Your task to perform on an android device: Open calendar and show me the second week of next month Image 0: 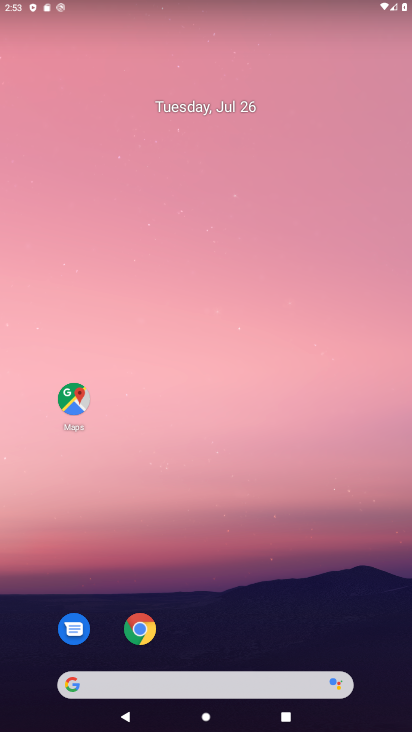
Step 0: drag from (224, 711) to (241, 212)
Your task to perform on an android device: Open calendar and show me the second week of next month Image 1: 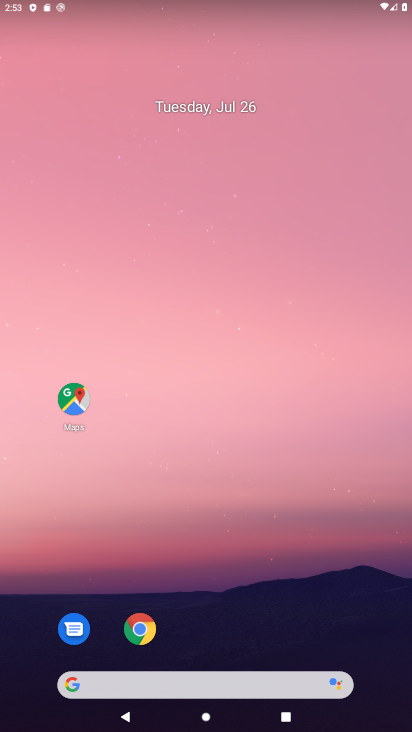
Step 1: drag from (229, 729) to (248, 82)
Your task to perform on an android device: Open calendar and show me the second week of next month Image 2: 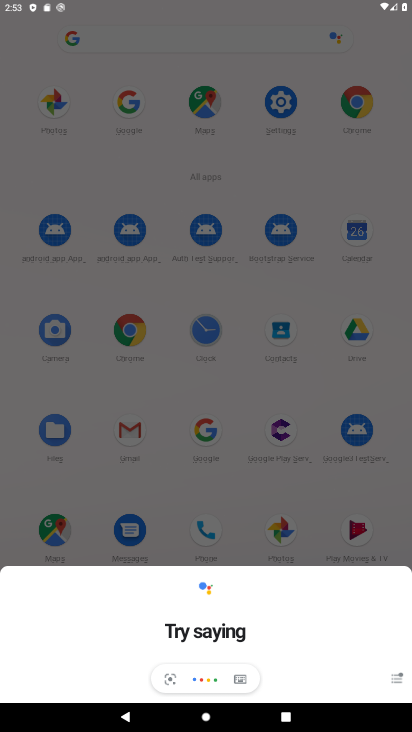
Step 2: click (360, 234)
Your task to perform on an android device: Open calendar and show me the second week of next month Image 3: 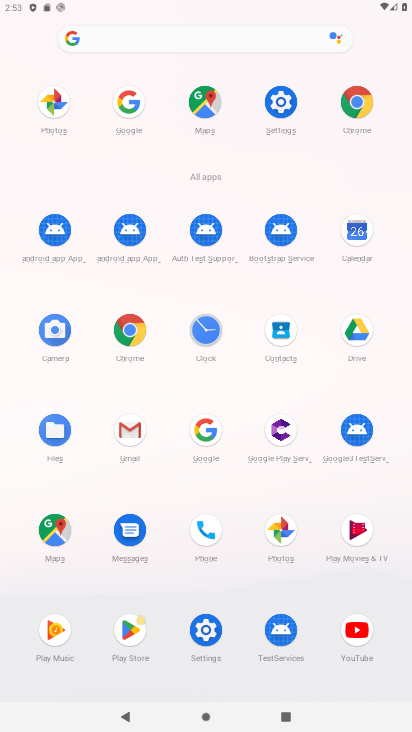
Step 3: click (359, 233)
Your task to perform on an android device: Open calendar and show me the second week of next month Image 4: 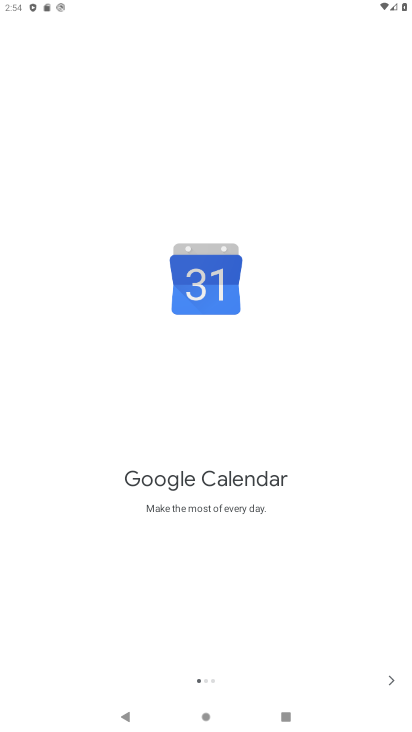
Step 4: click (389, 679)
Your task to perform on an android device: Open calendar and show me the second week of next month Image 5: 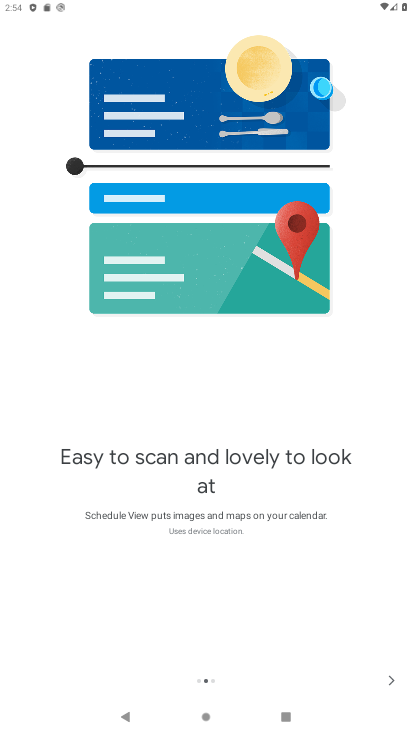
Step 5: click (388, 679)
Your task to perform on an android device: Open calendar and show me the second week of next month Image 6: 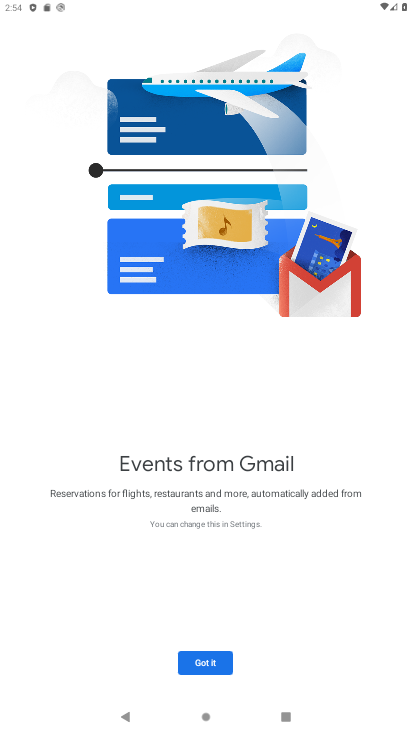
Step 6: click (219, 668)
Your task to perform on an android device: Open calendar and show me the second week of next month Image 7: 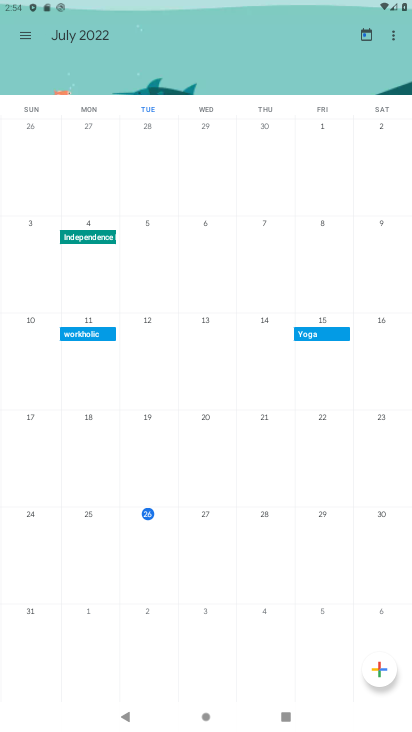
Step 7: drag from (330, 262) to (162, 283)
Your task to perform on an android device: Open calendar and show me the second week of next month Image 8: 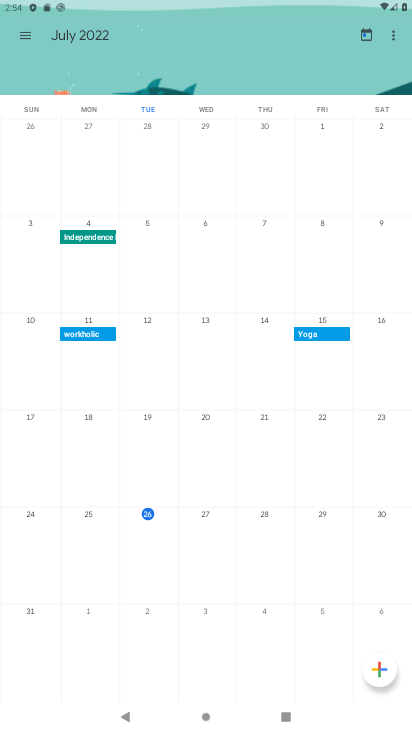
Step 8: drag from (368, 330) to (11, 319)
Your task to perform on an android device: Open calendar and show me the second week of next month Image 9: 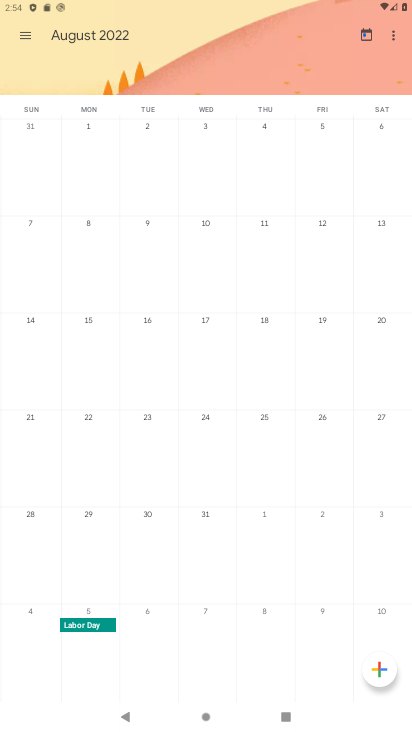
Step 9: click (89, 223)
Your task to perform on an android device: Open calendar and show me the second week of next month Image 10: 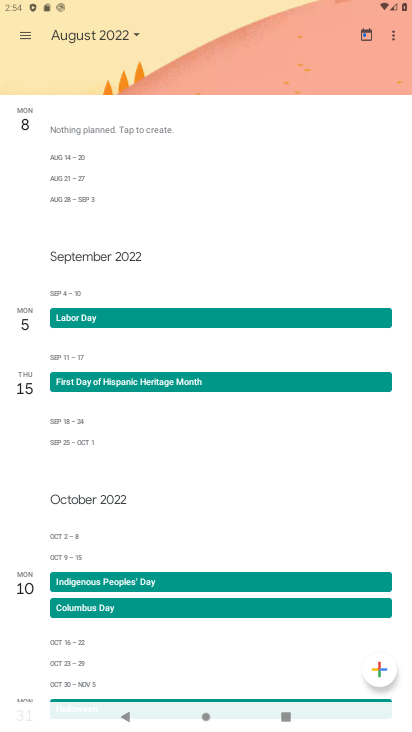
Step 10: click (26, 33)
Your task to perform on an android device: Open calendar and show me the second week of next month Image 11: 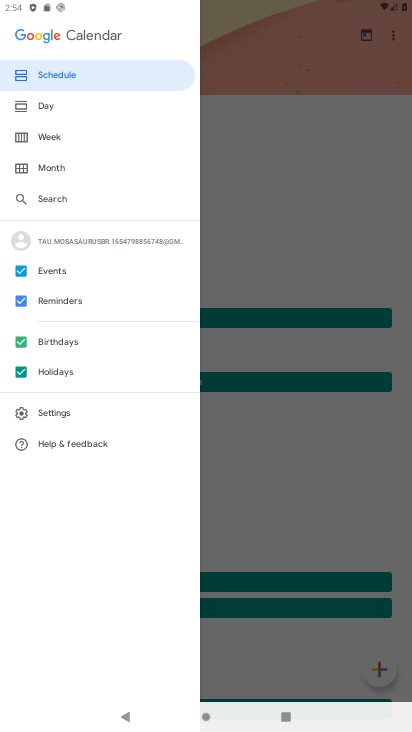
Step 11: click (52, 132)
Your task to perform on an android device: Open calendar and show me the second week of next month Image 12: 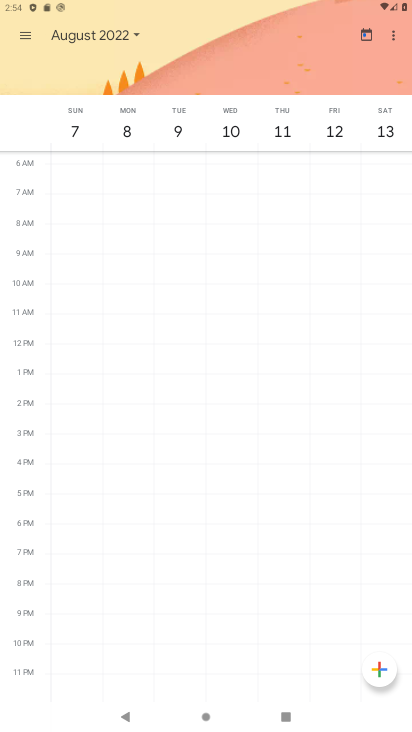
Step 12: task complete